Your task to perform on an android device: What's the news about the US dollar? Image 0: 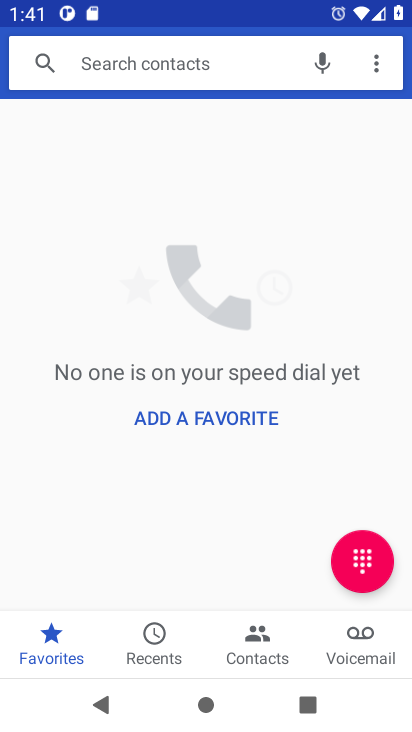
Step 0: press home button
Your task to perform on an android device: What's the news about the US dollar? Image 1: 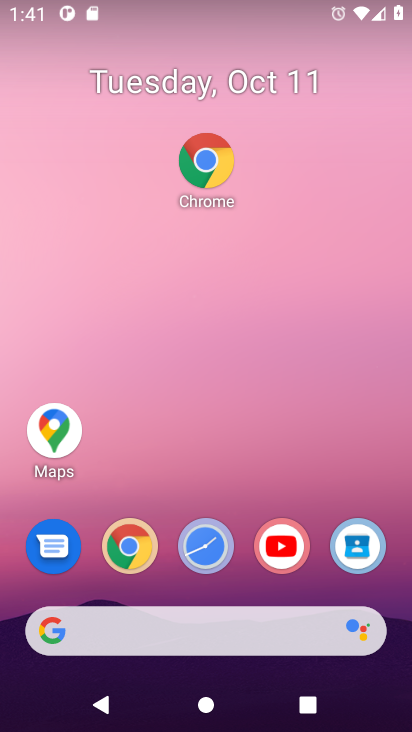
Step 1: click (131, 551)
Your task to perform on an android device: What's the news about the US dollar? Image 2: 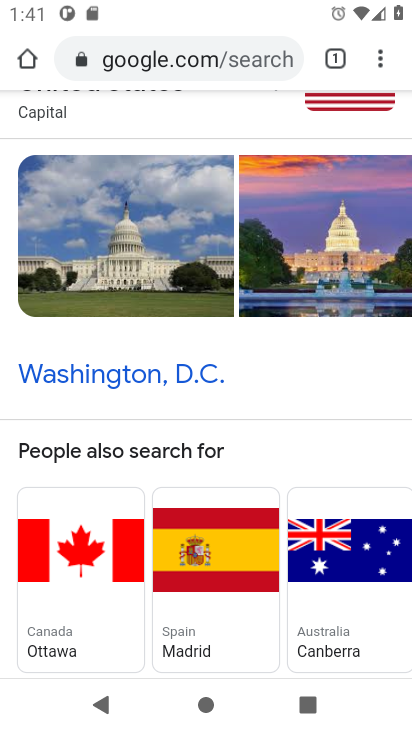
Step 2: click (184, 63)
Your task to perform on an android device: What's the news about the US dollar? Image 3: 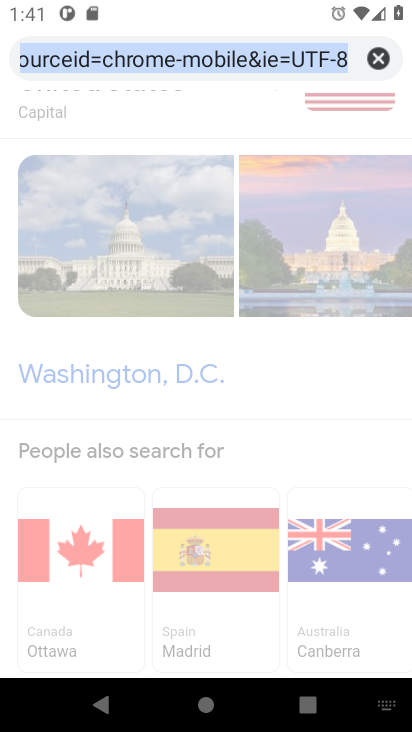
Step 3: type "news about the US dollar"
Your task to perform on an android device: What's the news about the US dollar? Image 4: 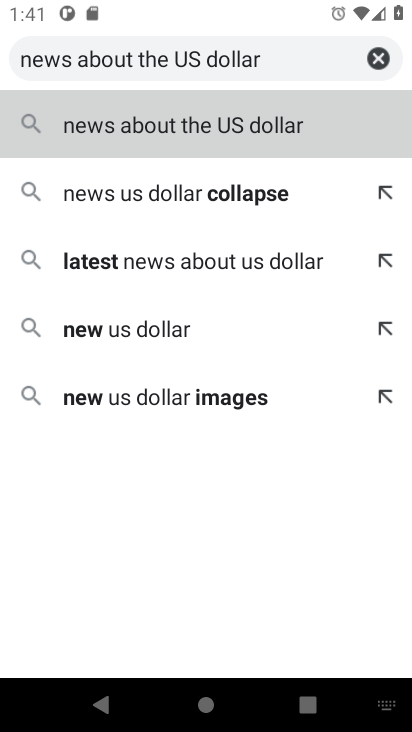
Step 4: press enter
Your task to perform on an android device: What's the news about the US dollar? Image 5: 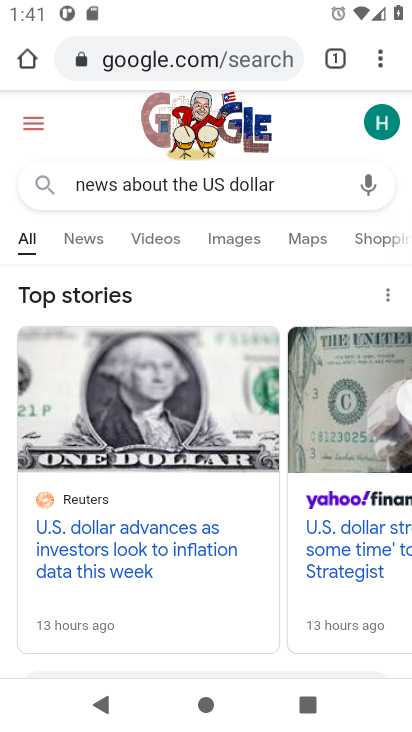
Step 5: click (63, 241)
Your task to perform on an android device: What's the news about the US dollar? Image 6: 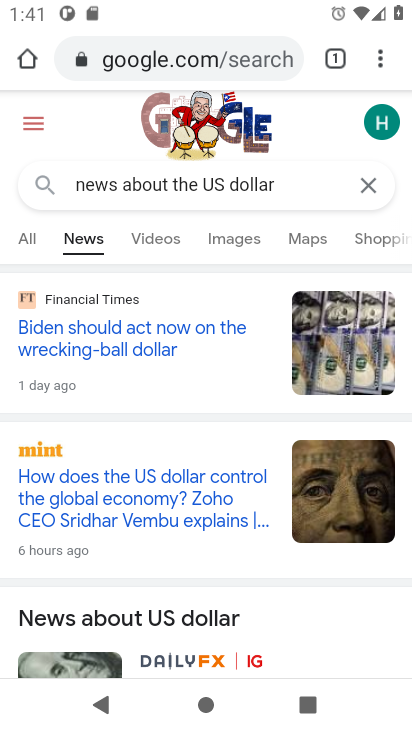
Step 6: drag from (189, 393) to (189, 222)
Your task to perform on an android device: What's the news about the US dollar? Image 7: 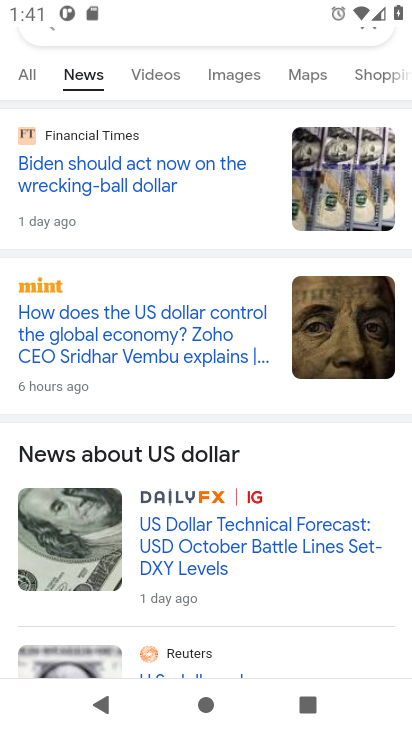
Step 7: drag from (198, 589) to (231, 380)
Your task to perform on an android device: What's the news about the US dollar? Image 8: 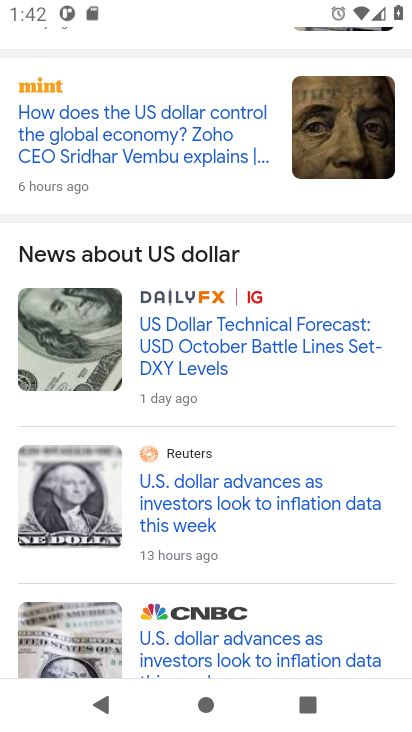
Step 8: drag from (266, 598) to (291, 493)
Your task to perform on an android device: What's the news about the US dollar? Image 9: 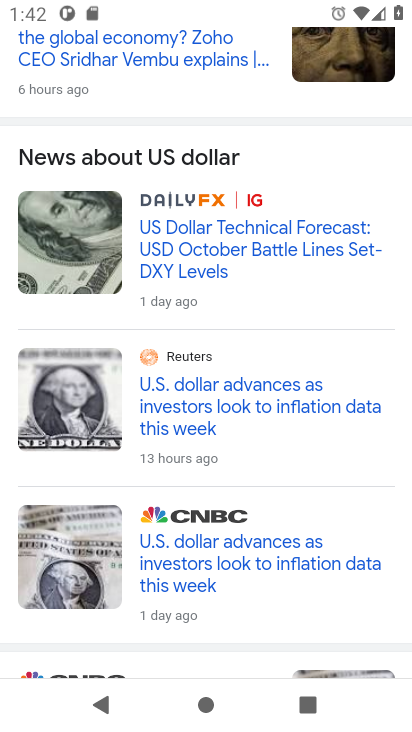
Step 9: click (185, 389)
Your task to perform on an android device: What's the news about the US dollar? Image 10: 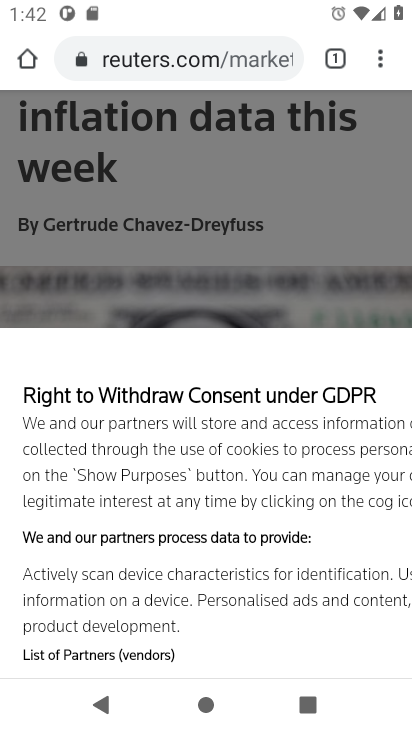
Step 10: drag from (181, 536) to (224, 135)
Your task to perform on an android device: What's the news about the US dollar? Image 11: 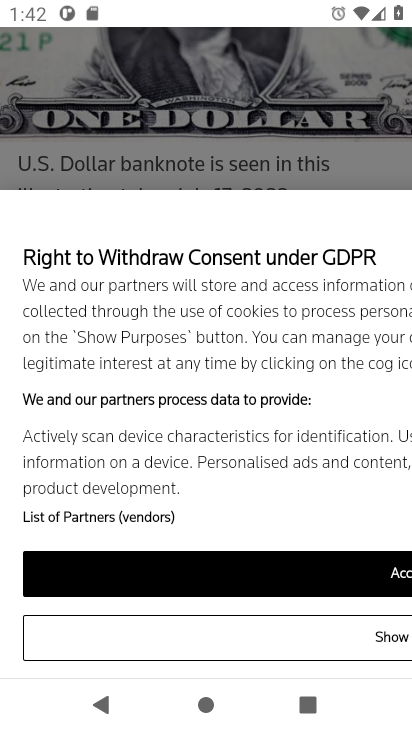
Step 11: click (347, 576)
Your task to perform on an android device: What's the news about the US dollar? Image 12: 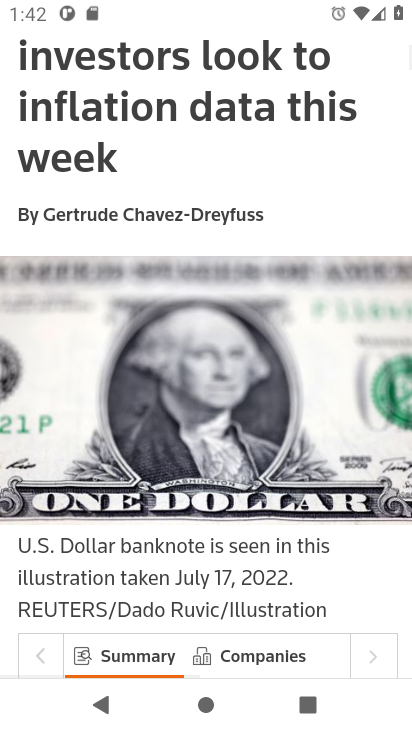
Step 12: task complete